Your task to perform on an android device: clear history in the chrome app Image 0: 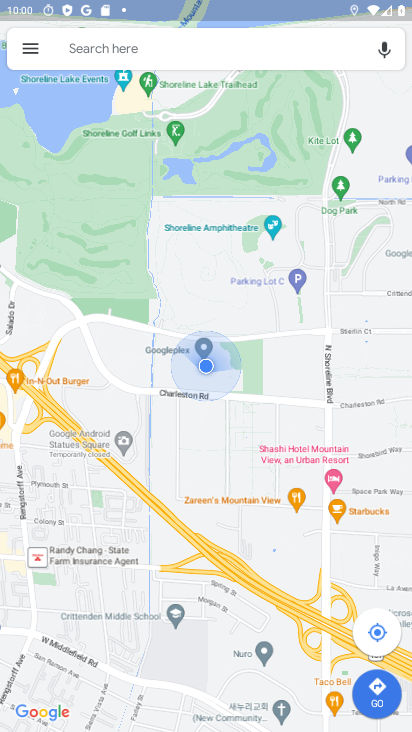
Step 0: press home button
Your task to perform on an android device: clear history in the chrome app Image 1: 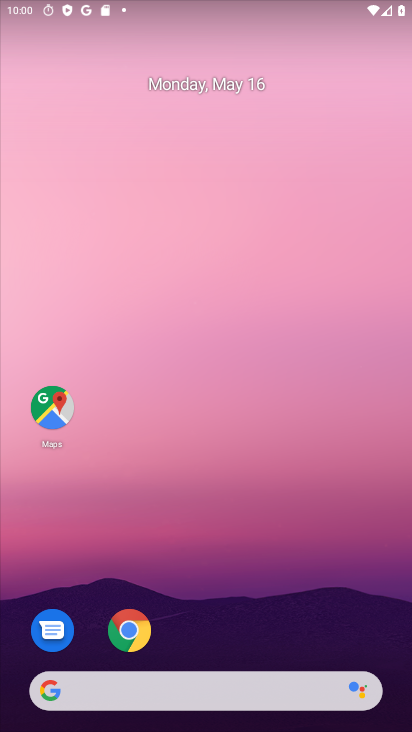
Step 1: click (131, 633)
Your task to perform on an android device: clear history in the chrome app Image 2: 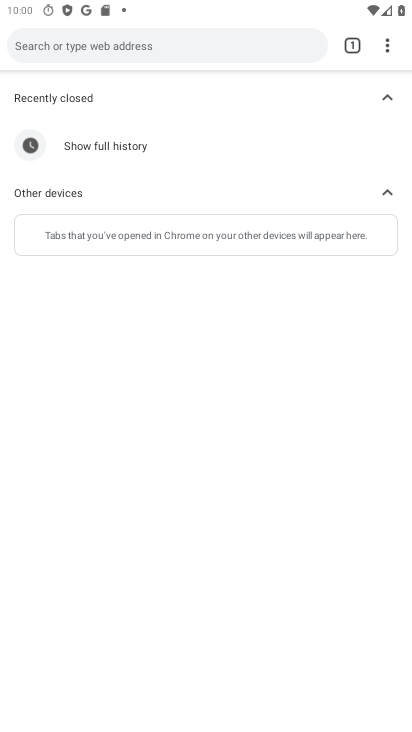
Step 2: click (387, 41)
Your task to perform on an android device: clear history in the chrome app Image 3: 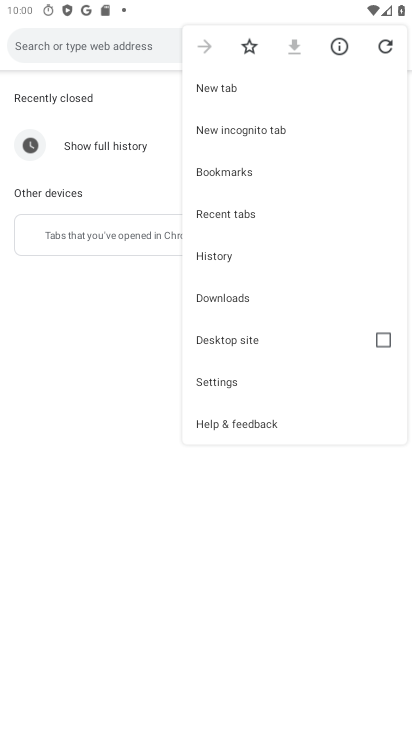
Step 3: click (233, 261)
Your task to perform on an android device: clear history in the chrome app Image 4: 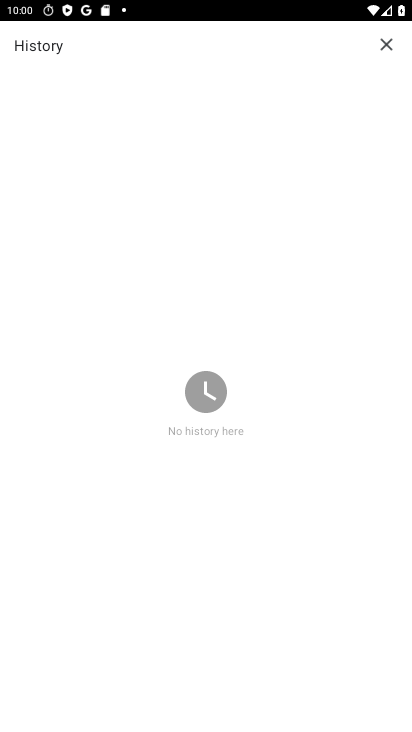
Step 4: task complete